Your task to perform on an android device: set an alarm Image 0: 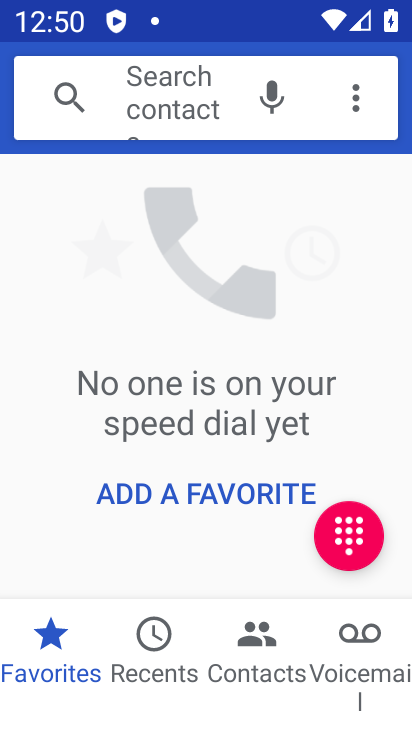
Step 0: press home button
Your task to perform on an android device: set an alarm Image 1: 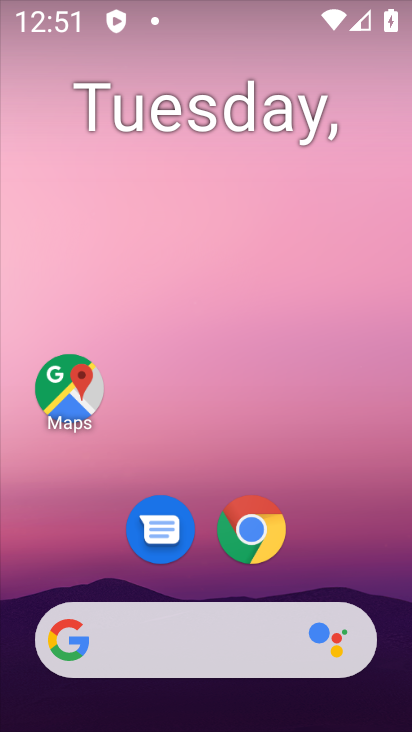
Step 1: drag from (214, 627) to (182, 28)
Your task to perform on an android device: set an alarm Image 2: 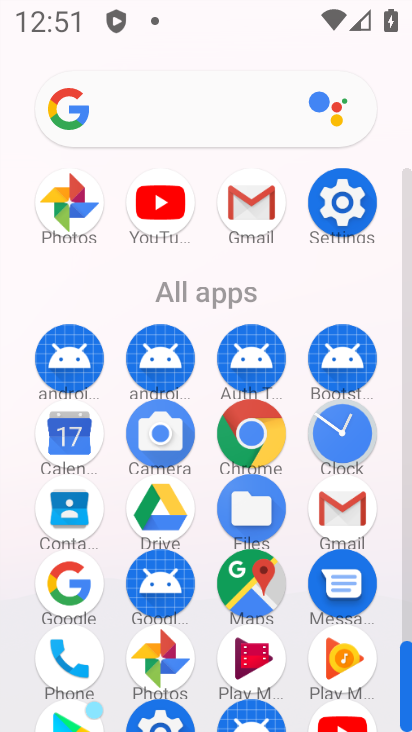
Step 2: click (364, 434)
Your task to perform on an android device: set an alarm Image 3: 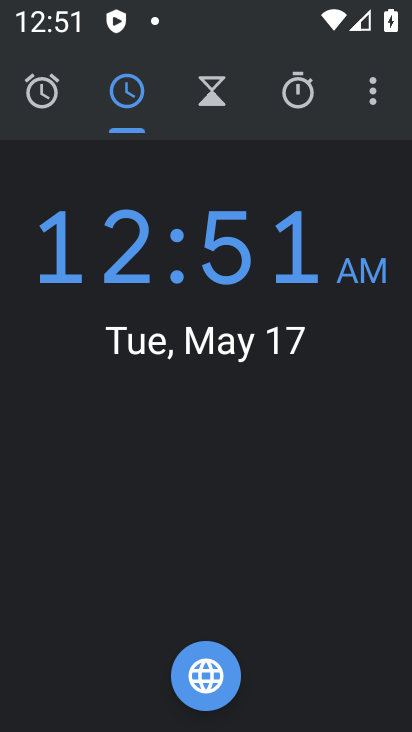
Step 3: click (41, 95)
Your task to perform on an android device: set an alarm Image 4: 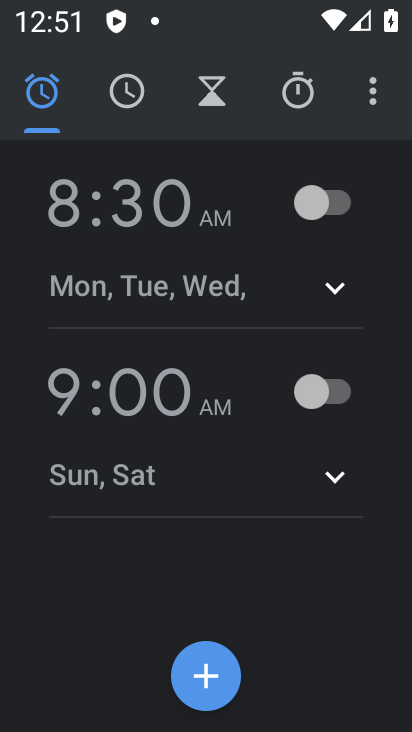
Step 4: click (223, 648)
Your task to perform on an android device: set an alarm Image 5: 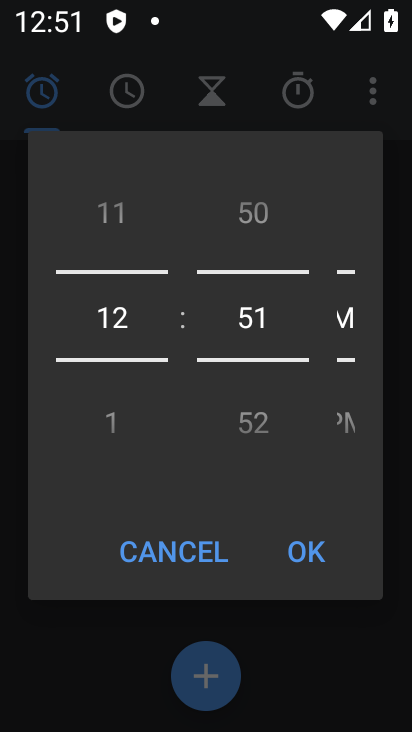
Step 5: click (307, 559)
Your task to perform on an android device: set an alarm Image 6: 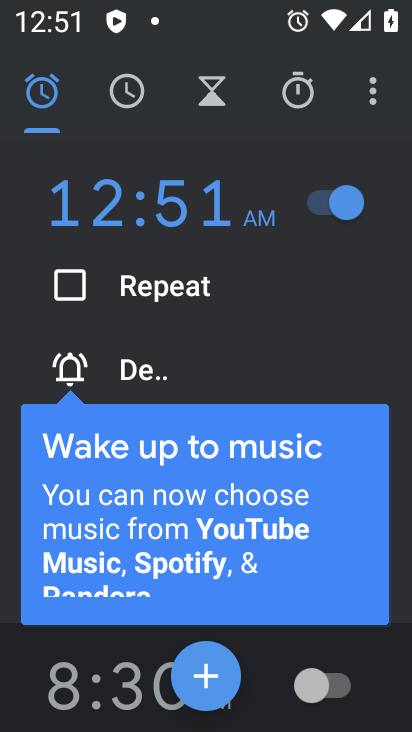
Step 6: task complete